Your task to perform on an android device: turn off location history Image 0: 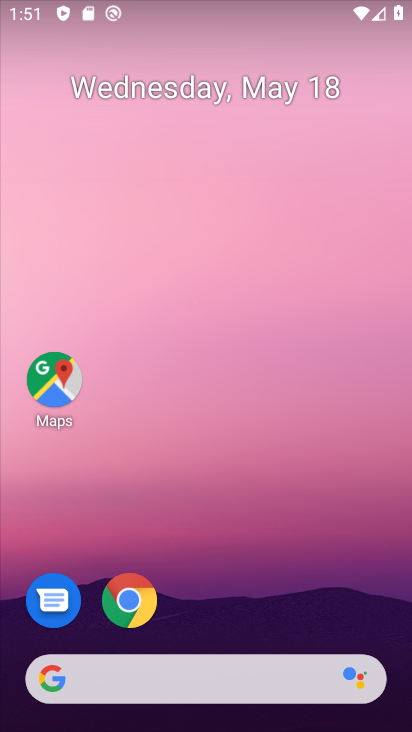
Step 0: drag from (168, 687) to (298, 213)
Your task to perform on an android device: turn off location history Image 1: 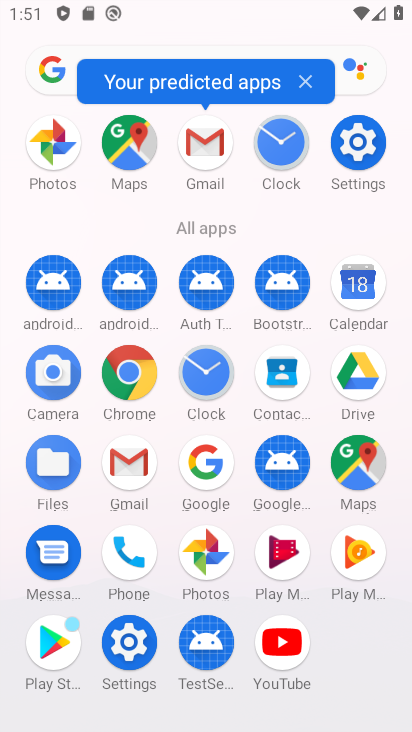
Step 1: click (126, 146)
Your task to perform on an android device: turn off location history Image 2: 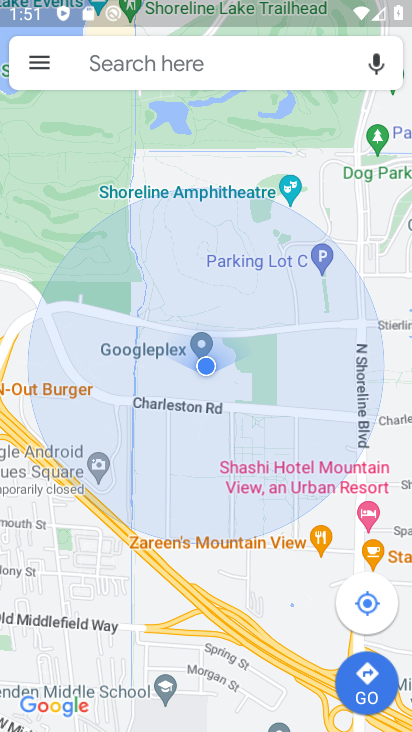
Step 2: click (40, 64)
Your task to perform on an android device: turn off location history Image 3: 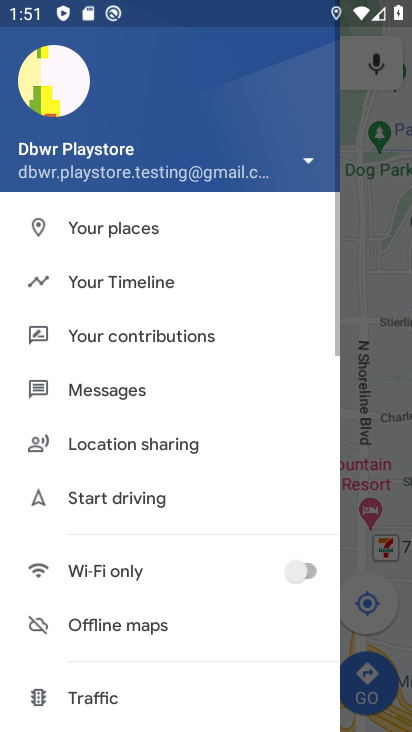
Step 3: click (168, 282)
Your task to perform on an android device: turn off location history Image 4: 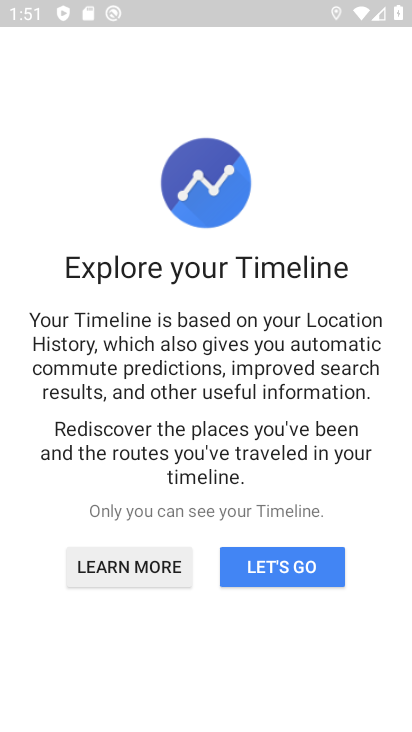
Step 4: click (294, 568)
Your task to perform on an android device: turn off location history Image 5: 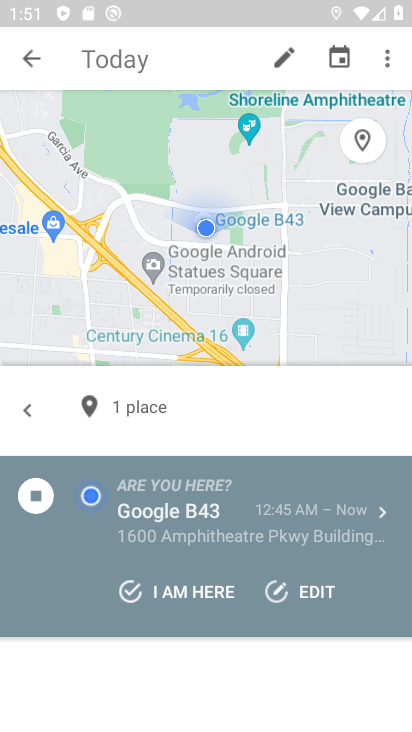
Step 5: click (388, 59)
Your task to perform on an android device: turn off location history Image 6: 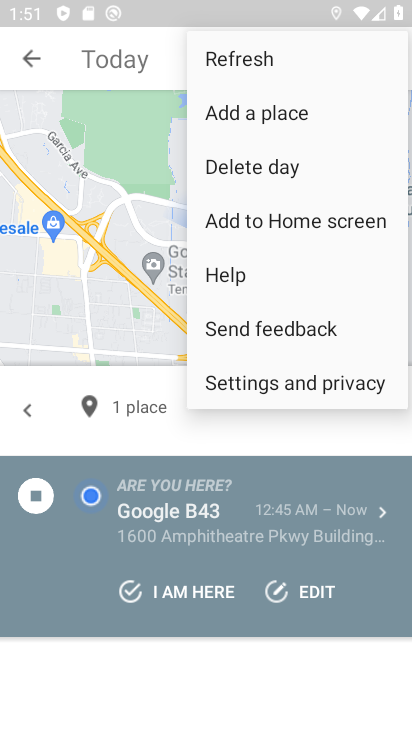
Step 6: click (250, 394)
Your task to perform on an android device: turn off location history Image 7: 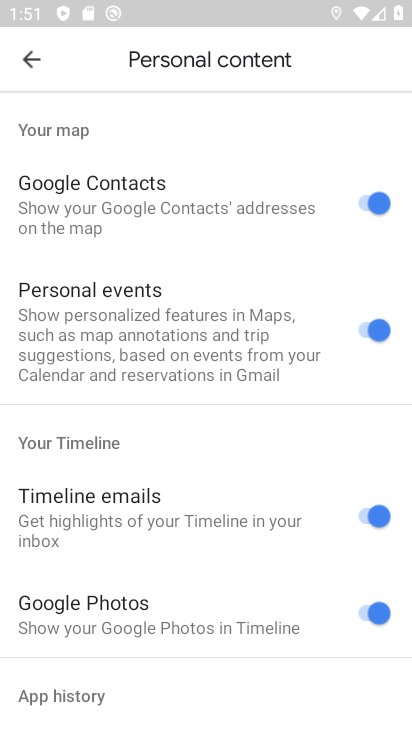
Step 7: drag from (190, 601) to (327, 121)
Your task to perform on an android device: turn off location history Image 8: 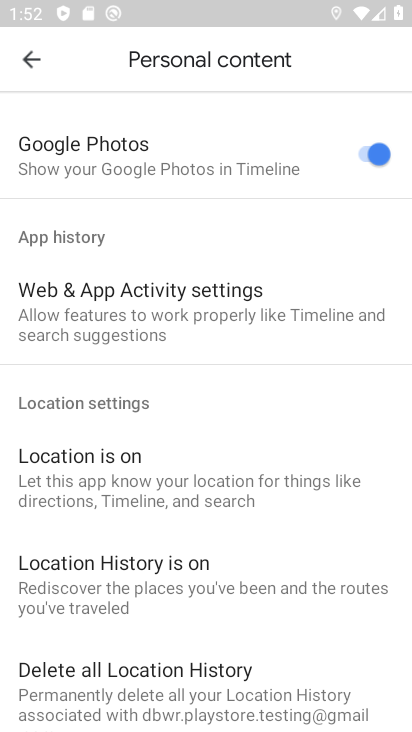
Step 8: click (140, 577)
Your task to perform on an android device: turn off location history Image 9: 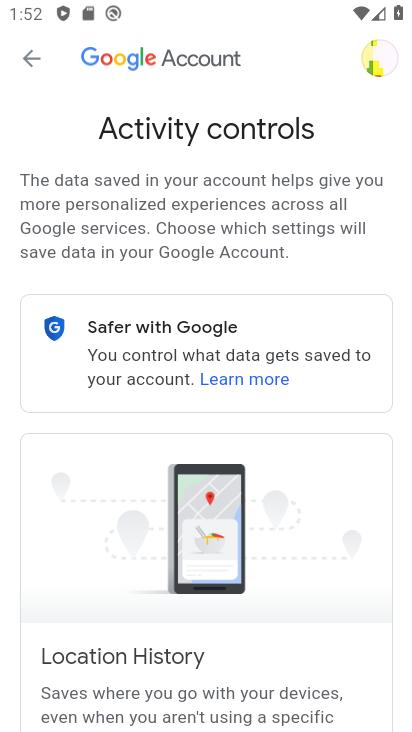
Step 9: drag from (131, 553) to (218, 208)
Your task to perform on an android device: turn off location history Image 10: 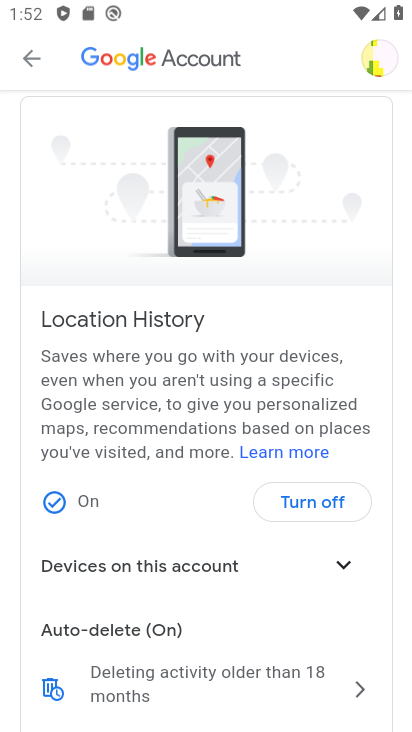
Step 10: click (333, 507)
Your task to perform on an android device: turn off location history Image 11: 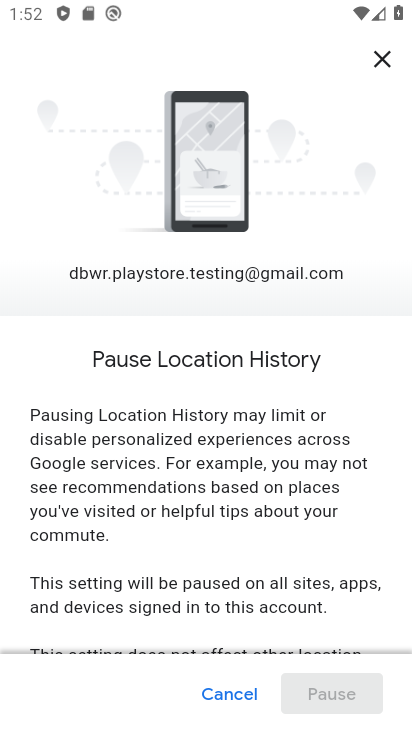
Step 11: drag from (198, 548) to (306, 115)
Your task to perform on an android device: turn off location history Image 12: 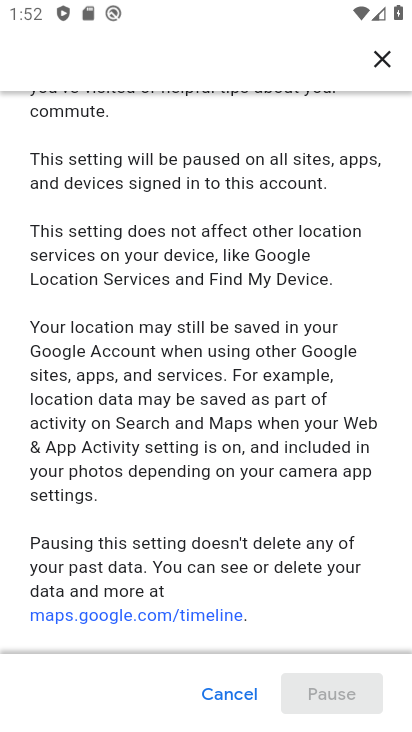
Step 12: drag from (206, 518) to (326, 20)
Your task to perform on an android device: turn off location history Image 13: 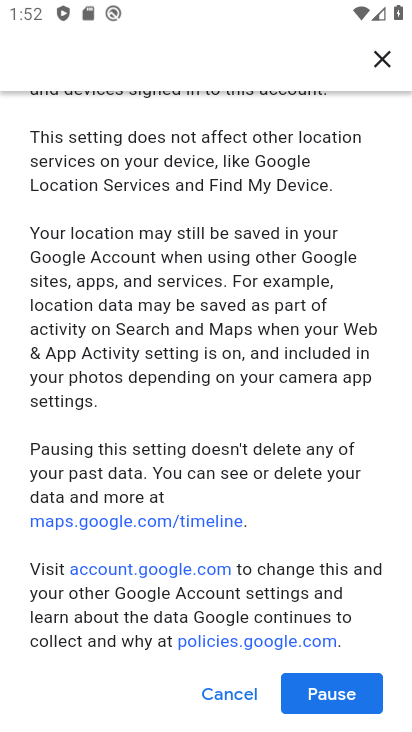
Step 13: click (339, 698)
Your task to perform on an android device: turn off location history Image 14: 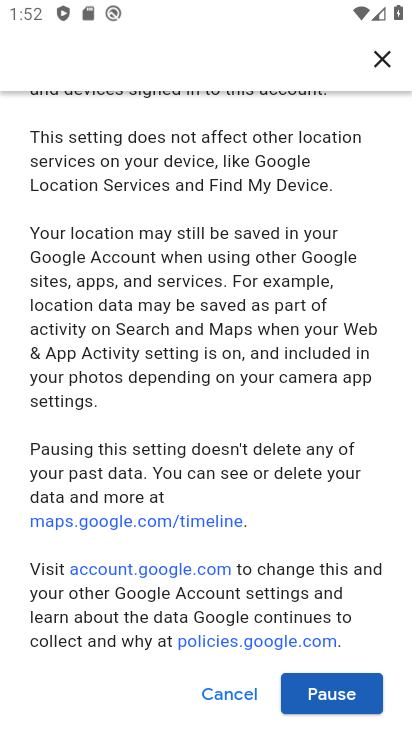
Step 14: click (339, 695)
Your task to perform on an android device: turn off location history Image 15: 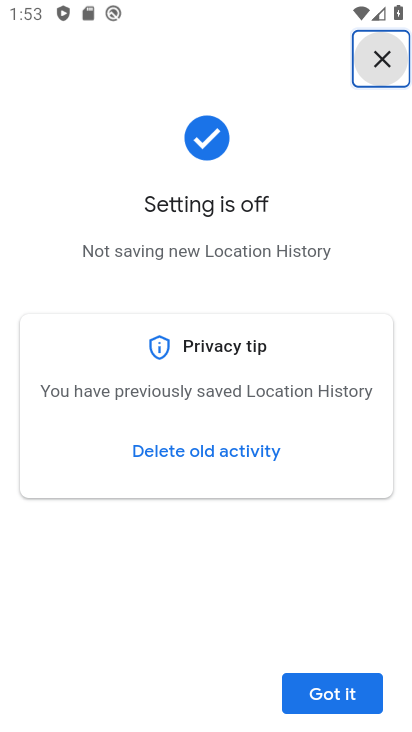
Step 15: task complete